Your task to perform on an android device: Go to Wikipedia Image 0: 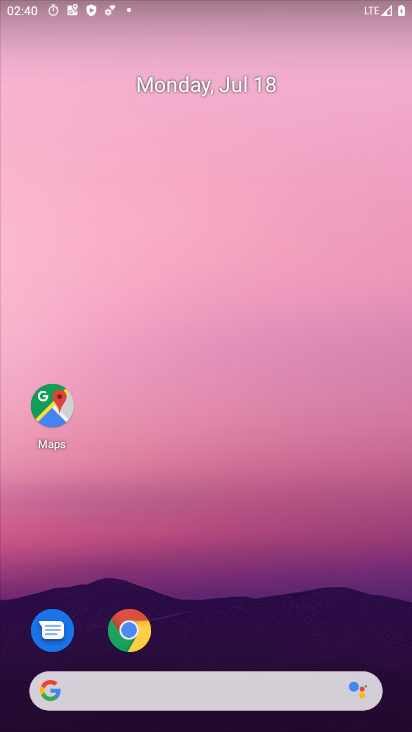
Step 0: click (153, 681)
Your task to perform on an android device: Go to Wikipedia Image 1: 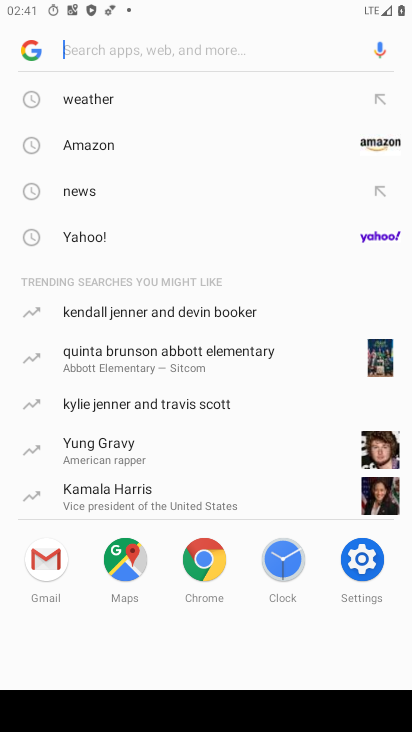
Step 1: click (37, 41)
Your task to perform on an android device: Go to Wikipedia Image 2: 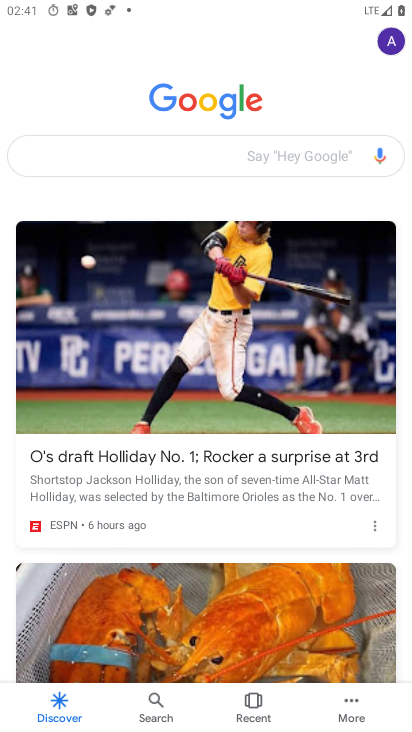
Step 2: click (201, 148)
Your task to perform on an android device: Go to Wikipedia Image 3: 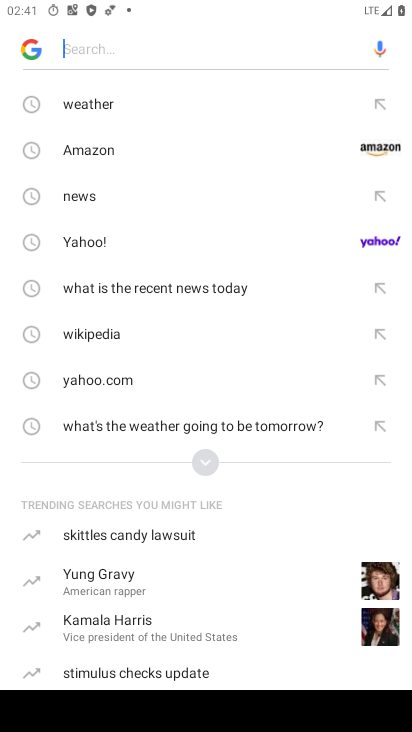
Step 3: type "wikipedia"
Your task to perform on an android device: Go to Wikipedia Image 4: 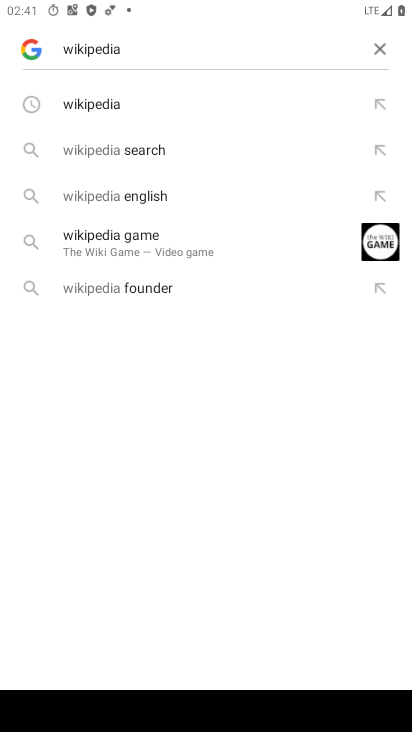
Step 4: click (149, 116)
Your task to perform on an android device: Go to Wikipedia Image 5: 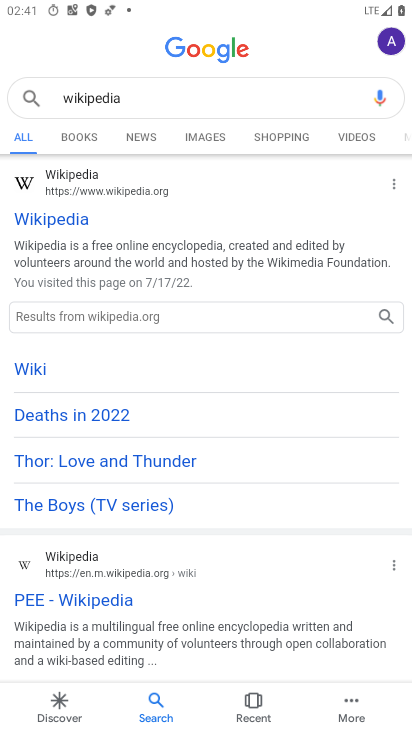
Step 5: click (24, 224)
Your task to perform on an android device: Go to Wikipedia Image 6: 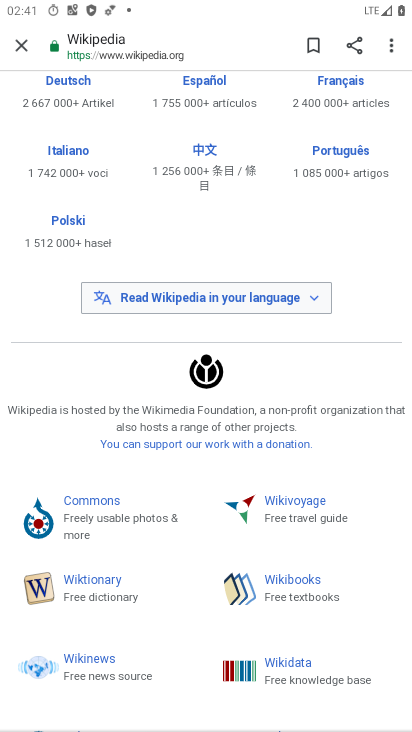
Step 6: task complete